Your task to perform on an android device: Find coffee shops on Maps Image 0: 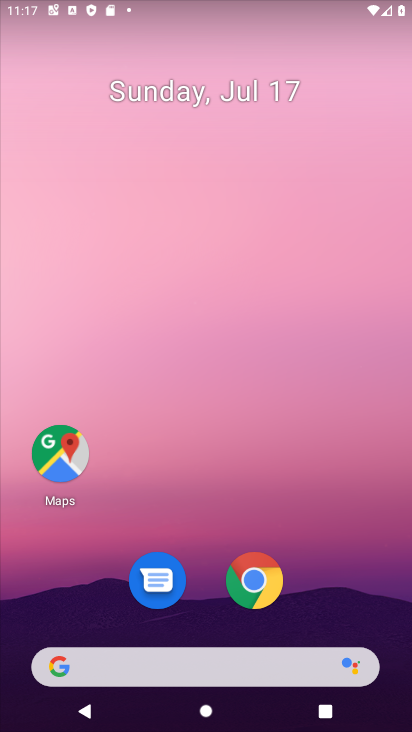
Step 0: click (317, 209)
Your task to perform on an android device: Find coffee shops on Maps Image 1: 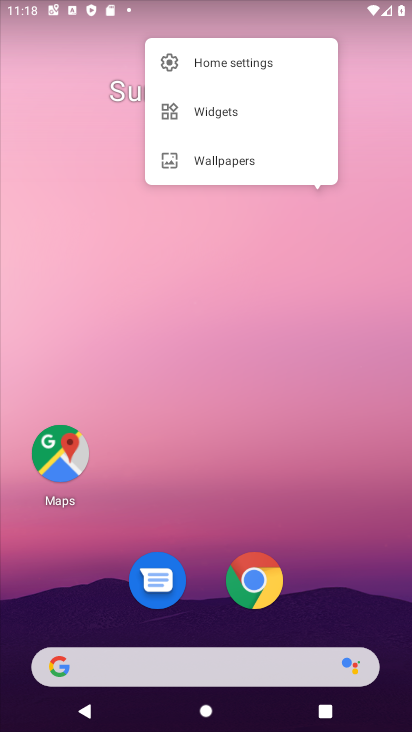
Step 1: click (293, 399)
Your task to perform on an android device: Find coffee shops on Maps Image 2: 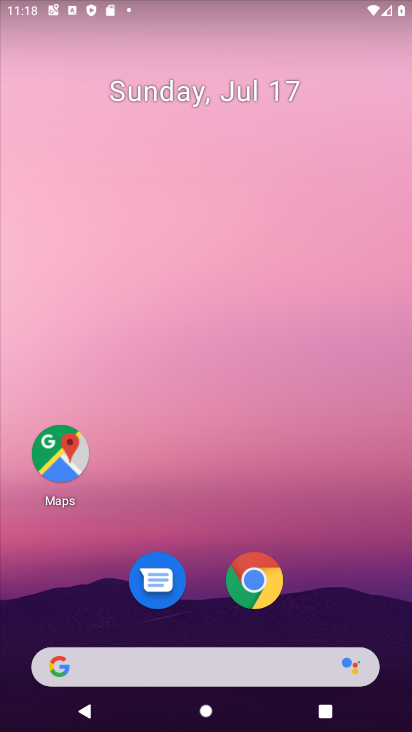
Step 2: drag from (234, 709) to (197, 183)
Your task to perform on an android device: Find coffee shops on Maps Image 3: 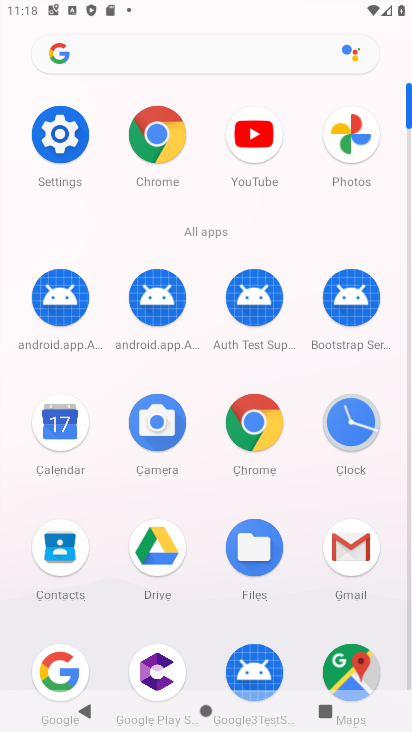
Step 3: drag from (274, 569) to (246, 308)
Your task to perform on an android device: Find coffee shops on Maps Image 4: 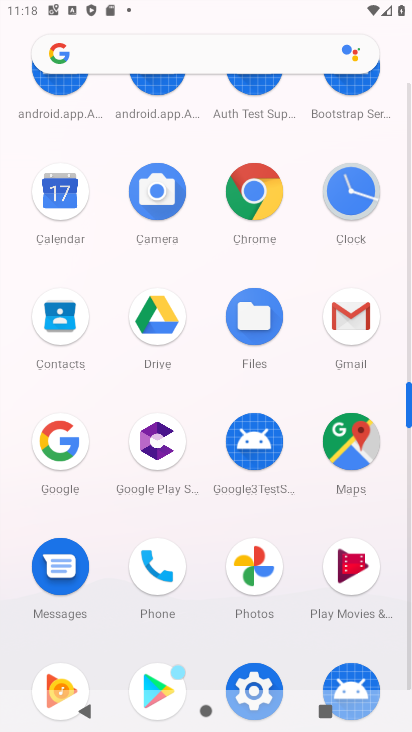
Step 4: click (349, 446)
Your task to perform on an android device: Find coffee shops on Maps Image 5: 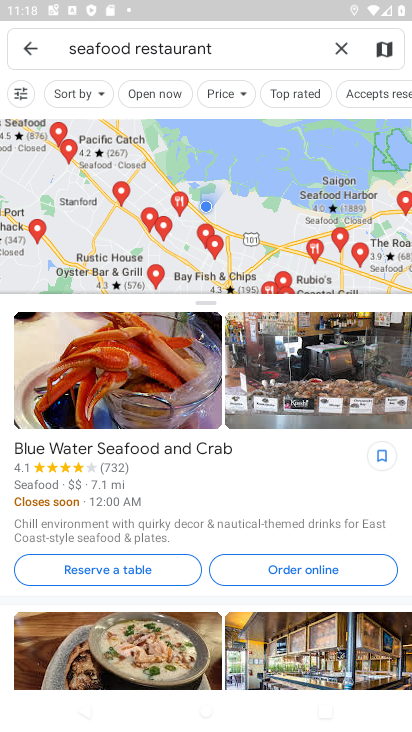
Step 5: click (339, 46)
Your task to perform on an android device: Find coffee shops on Maps Image 6: 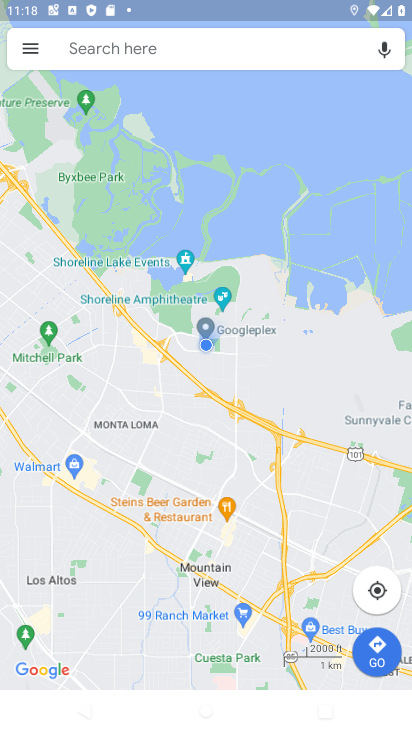
Step 6: click (201, 49)
Your task to perform on an android device: Find coffee shops on Maps Image 7: 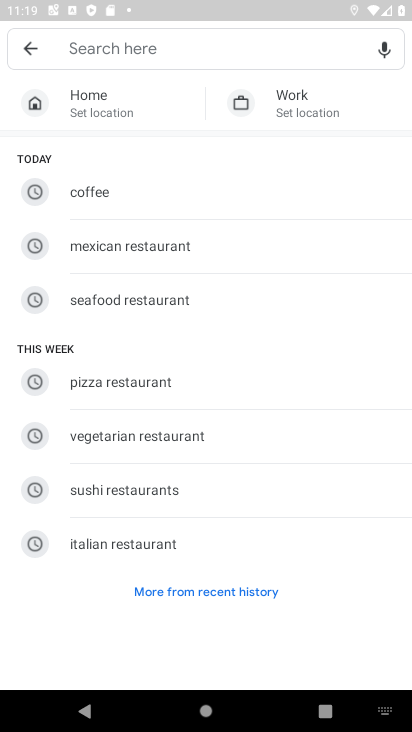
Step 7: type "coffee shops"
Your task to perform on an android device: Find coffee shops on Maps Image 8: 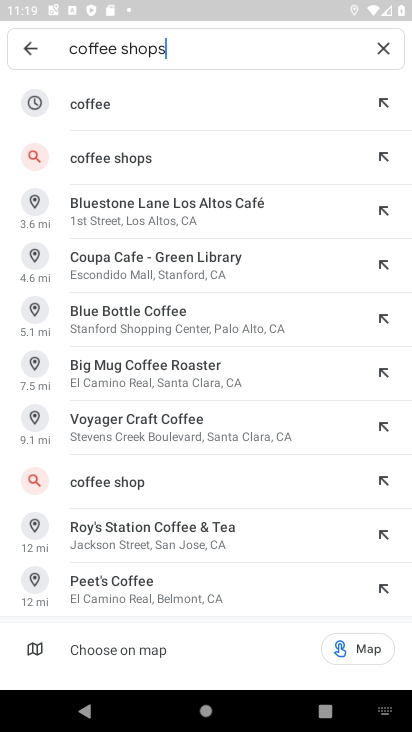
Step 8: click (208, 168)
Your task to perform on an android device: Find coffee shops on Maps Image 9: 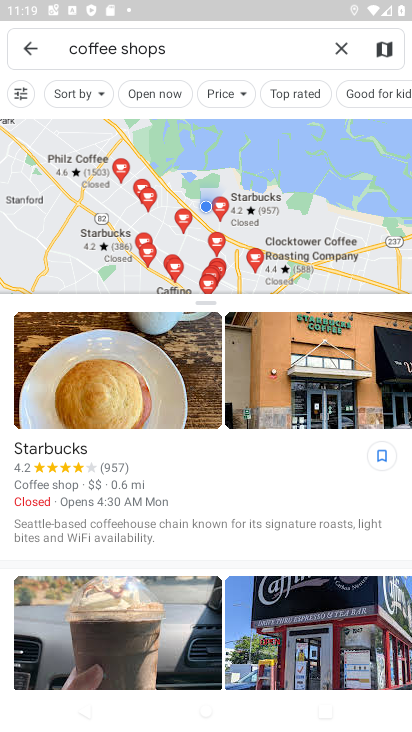
Step 9: task complete